Your task to perform on an android device: Go to calendar. Show me events next week Image 0: 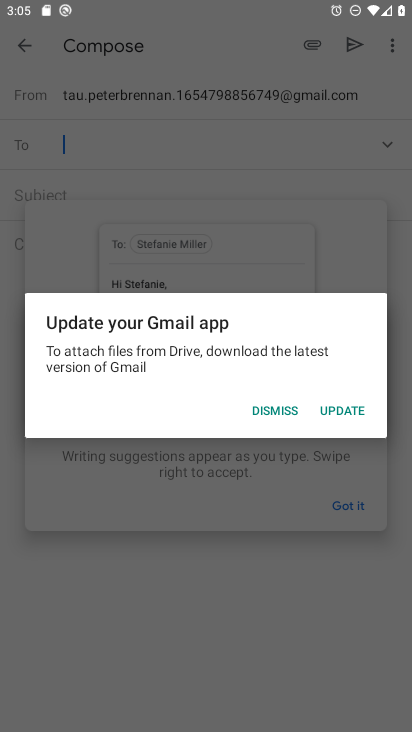
Step 0: press home button
Your task to perform on an android device: Go to calendar. Show me events next week Image 1: 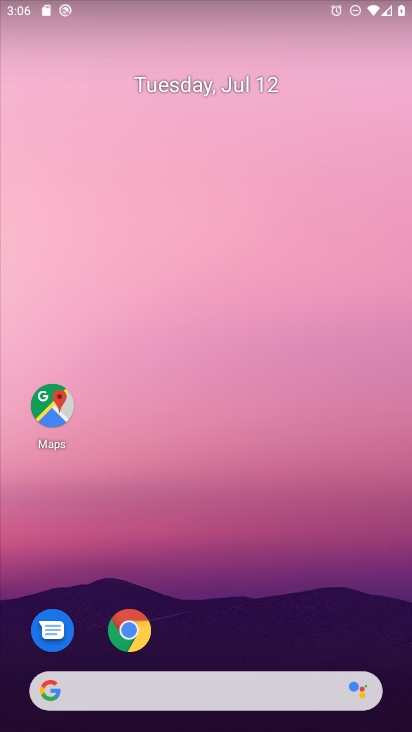
Step 1: drag from (217, 633) to (278, 90)
Your task to perform on an android device: Go to calendar. Show me events next week Image 2: 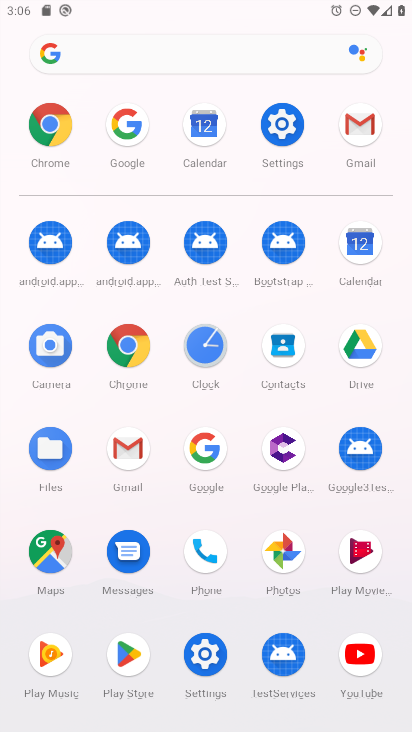
Step 2: click (362, 270)
Your task to perform on an android device: Go to calendar. Show me events next week Image 3: 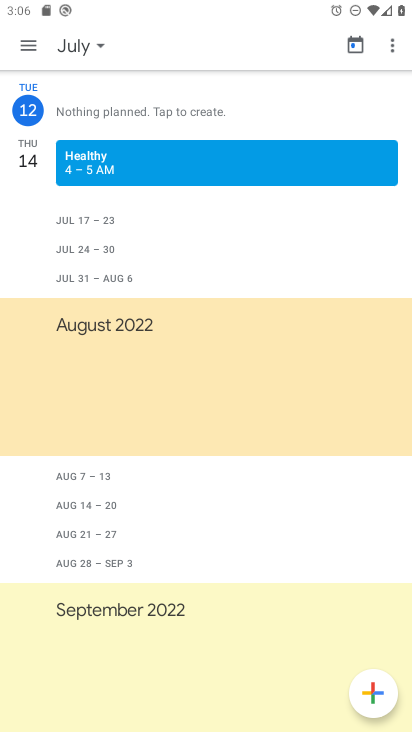
Step 3: click (87, 46)
Your task to perform on an android device: Go to calendar. Show me events next week Image 4: 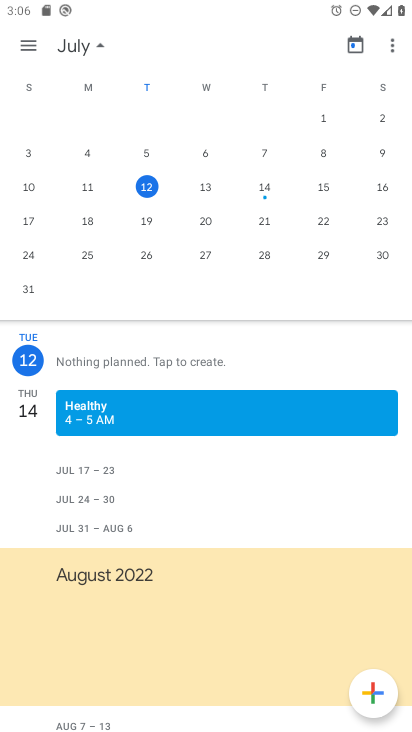
Step 4: task complete